Your task to perform on an android device: Open internet settings Image 0: 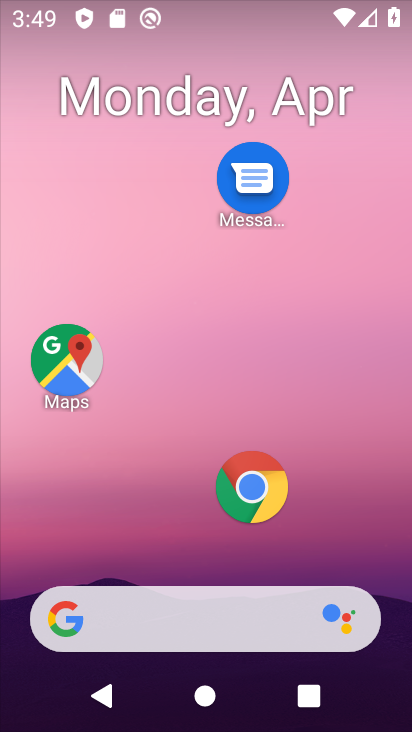
Step 0: drag from (169, 546) to (228, 148)
Your task to perform on an android device: Open internet settings Image 1: 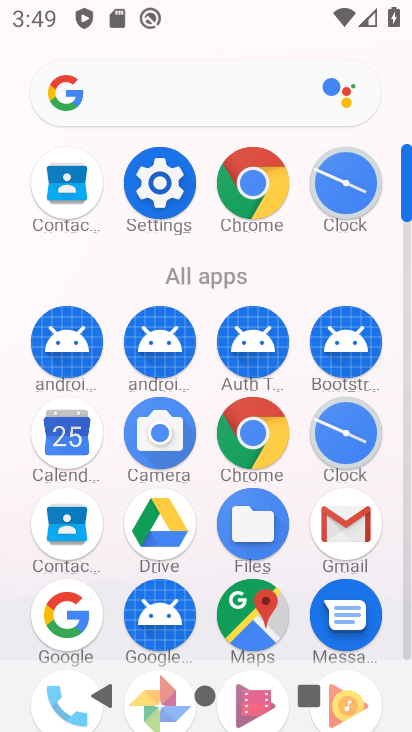
Step 1: click (155, 175)
Your task to perform on an android device: Open internet settings Image 2: 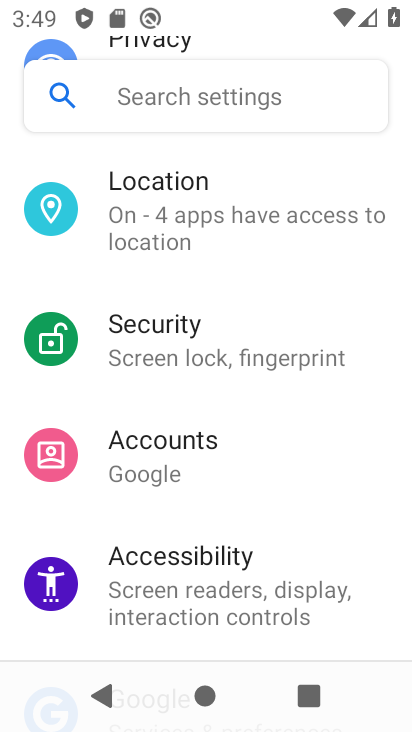
Step 2: drag from (217, 247) to (188, 607)
Your task to perform on an android device: Open internet settings Image 3: 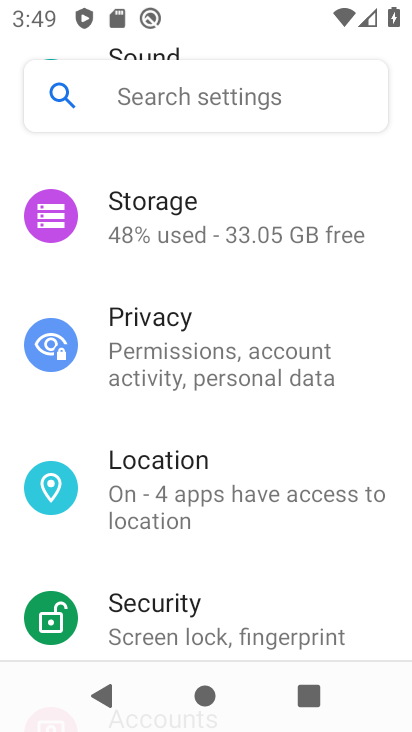
Step 3: drag from (230, 239) to (220, 673)
Your task to perform on an android device: Open internet settings Image 4: 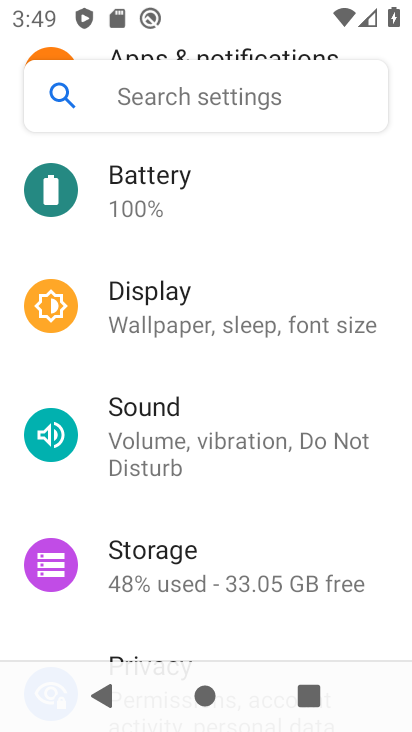
Step 4: drag from (260, 255) to (222, 583)
Your task to perform on an android device: Open internet settings Image 5: 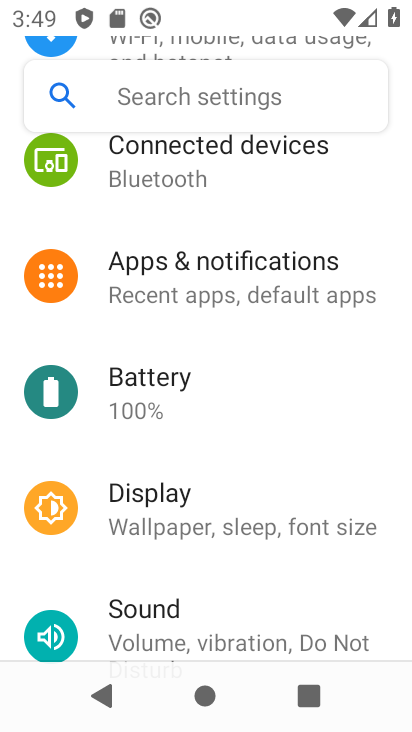
Step 5: drag from (183, 285) to (165, 729)
Your task to perform on an android device: Open internet settings Image 6: 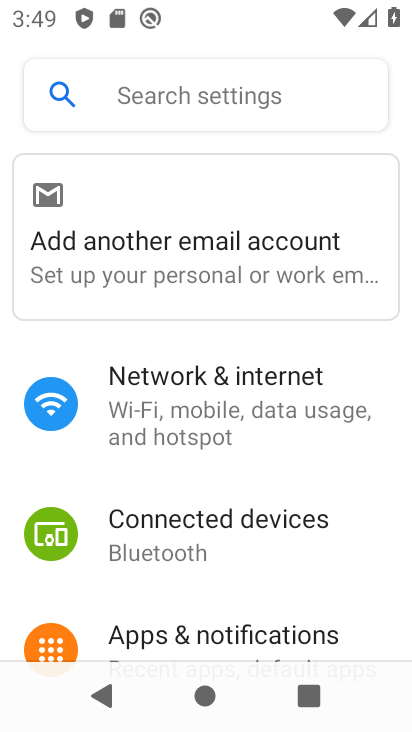
Step 6: click (214, 430)
Your task to perform on an android device: Open internet settings Image 7: 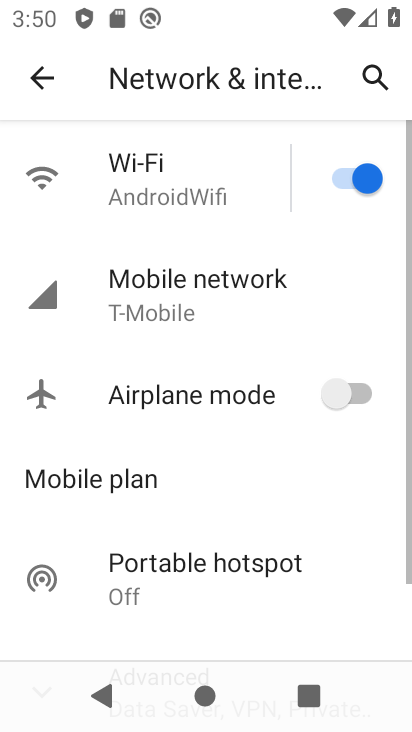
Step 7: task complete